Your task to perform on an android device: turn off airplane mode Image 0: 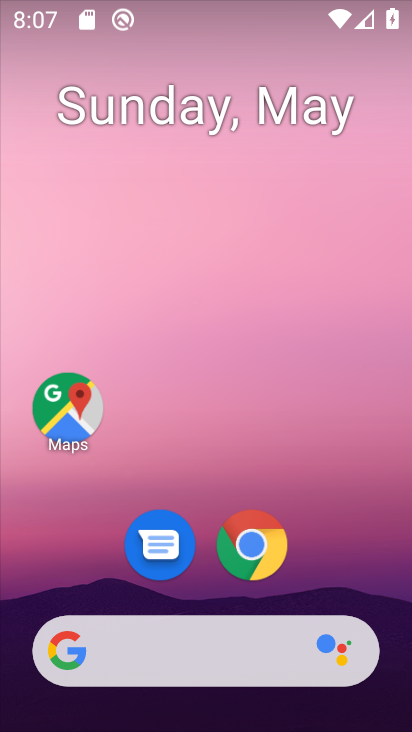
Step 0: drag from (83, 583) to (196, 154)
Your task to perform on an android device: turn off airplane mode Image 1: 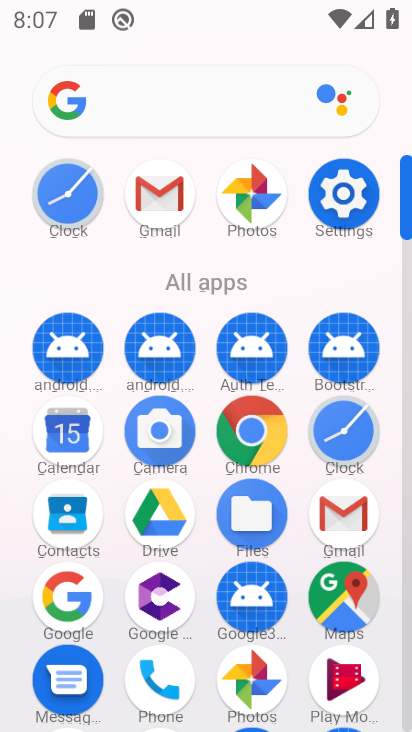
Step 1: click (344, 178)
Your task to perform on an android device: turn off airplane mode Image 2: 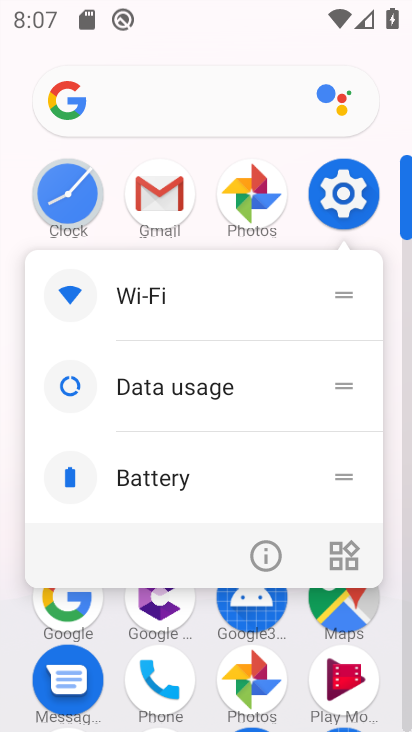
Step 2: click (336, 200)
Your task to perform on an android device: turn off airplane mode Image 3: 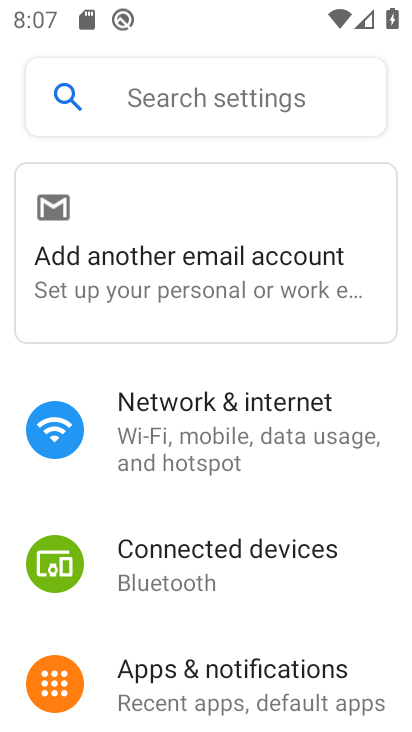
Step 3: click (223, 425)
Your task to perform on an android device: turn off airplane mode Image 4: 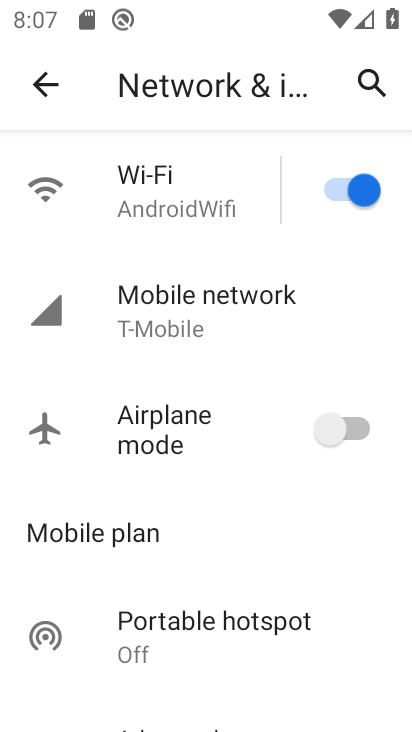
Step 4: task complete